Your task to perform on an android device: find snoozed emails in the gmail app Image 0: 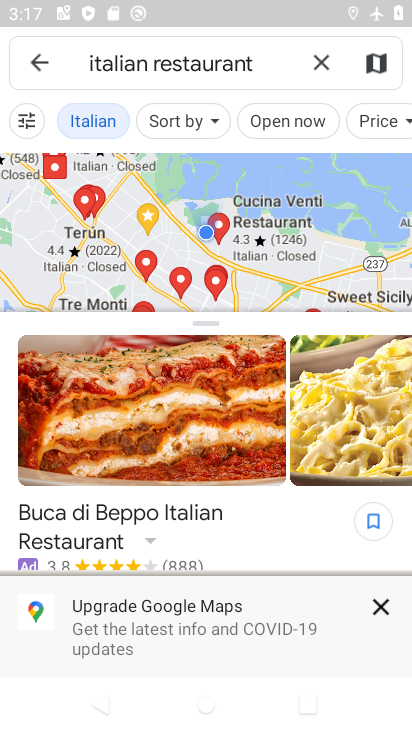
Step 0: press home button
Your task to perform on an android device: find snoozed emails in the gmail app Image 1: 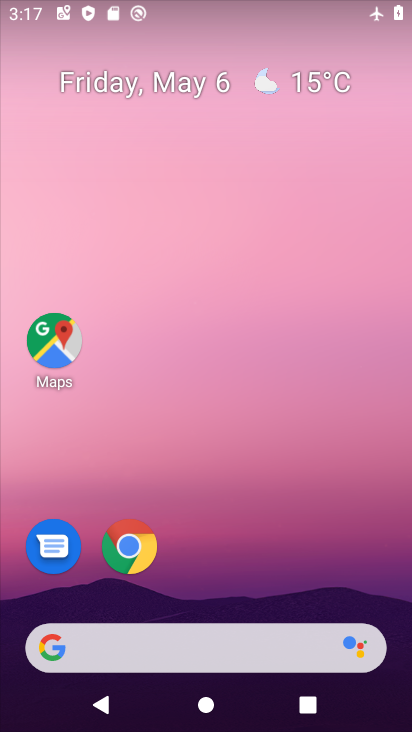
Step 1: drag from (335, 565) to (319, 210)
Your task to perform on an android device: find snoozed emails in the gmail app Image 2: 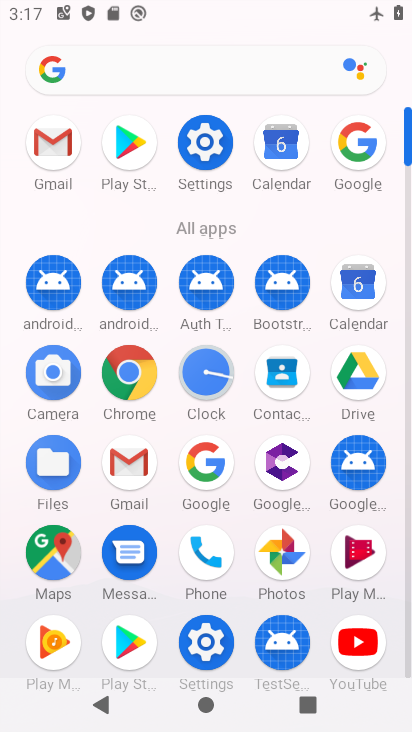
Step 2: click (50, 151)
Your task to perform on an android device: find snoozed emails in the gmail app Image 3: 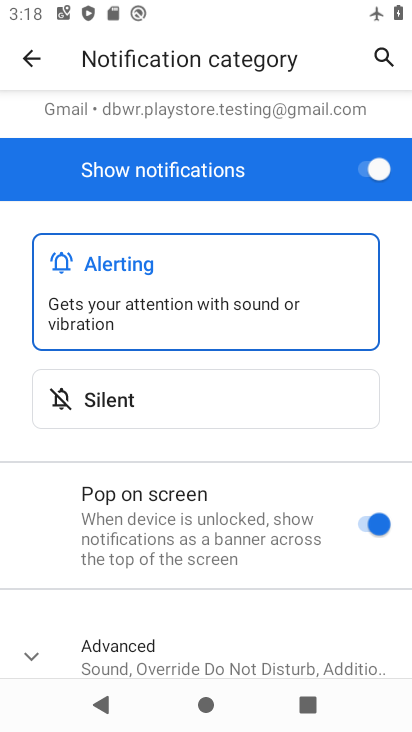
Step 3: click (19, 55)
Your task to perform on an android device: find snoozed emails in the gmail app Image 4: 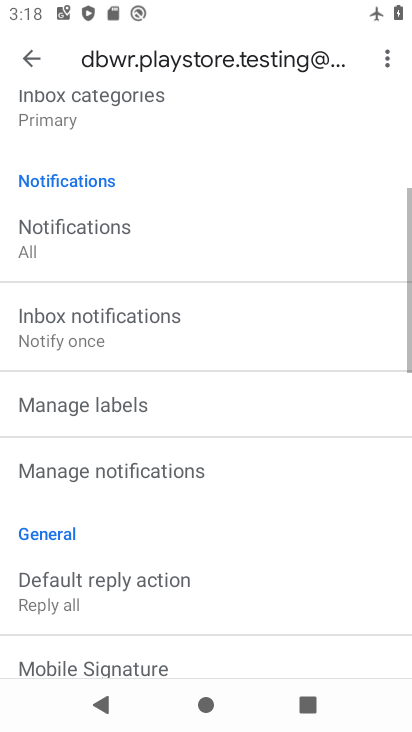
Step 4: click (19, 55)
Your task to perform on an android device: find snoozed emails in the gmail app Image 5: 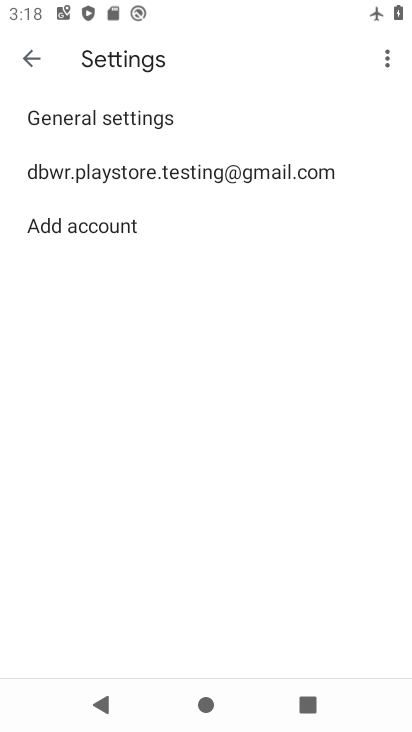
Step 5: click (19, 55)
Your task to perform on an android device: find snoozed emails in the gmail app Image 6: 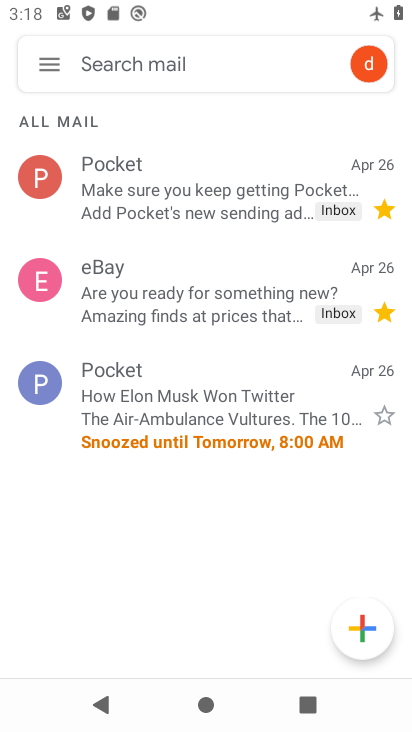
Step 6: click (52, 61)
Your task to perform on an android device: find snoozed emails in the gmail app Image 7: 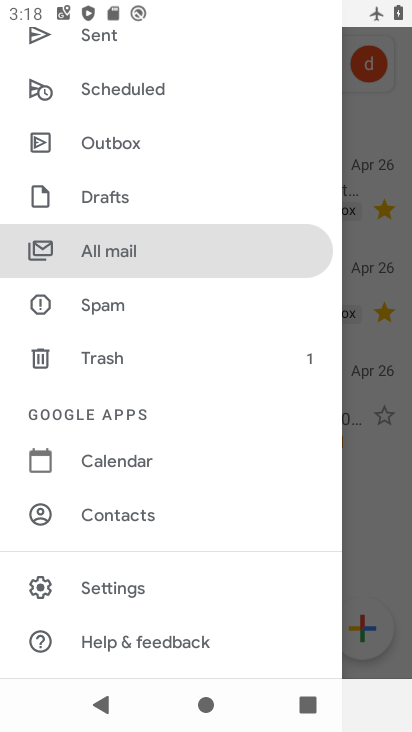
Step 7: drag from (136, 77) to (180, 442)
Your task to perform on an android device: find snoozed emails in the gmail app Image 8: 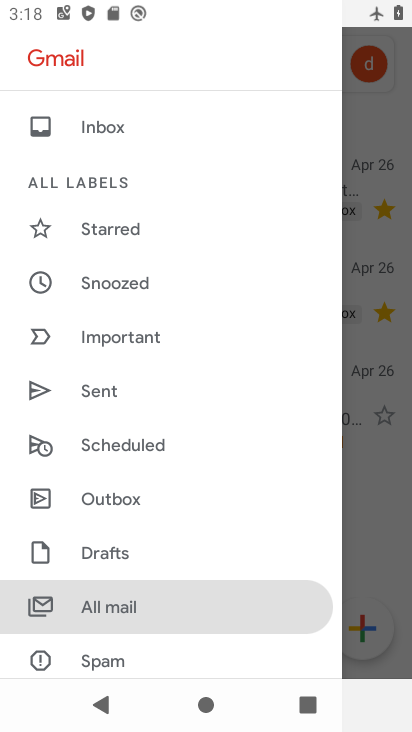
Step 8: click (214, 280)
Your task to perform on an android device: find snoozed emails in the gmail app Image 9: 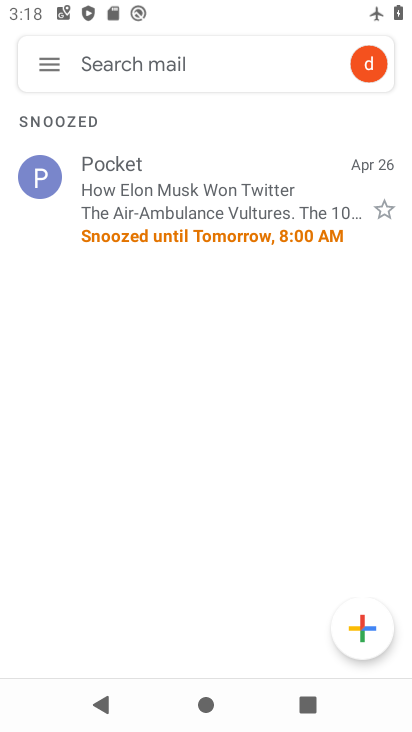
Step 9: task complete